Your task to perform on an android device: Search for sushi restaurants on Maps Image 0: 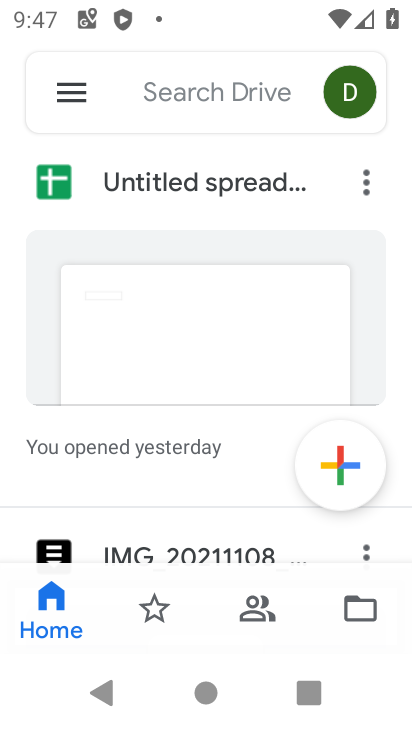
Step 0: press home button
Your task to perform on an android device: Search for sushi restaurants on Maps Image 1: 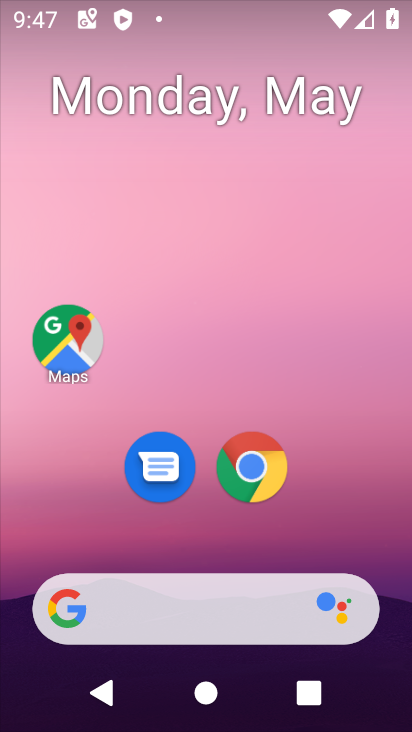
Step 1: click (66, 334)
Your task to perform on an android device: Search for sushi restaurants on Maps Image 2: 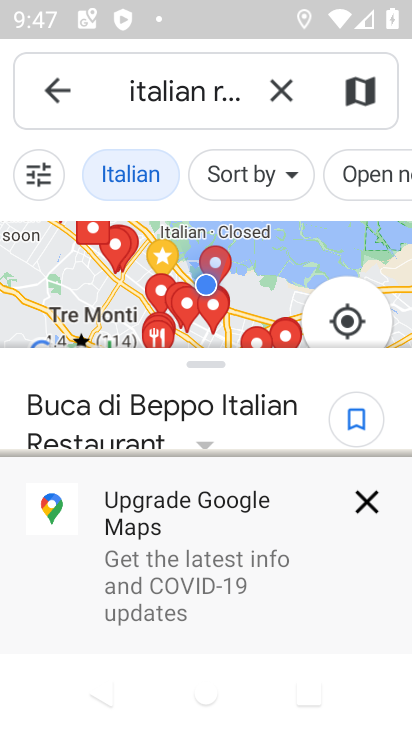
Step 2: click (281, 88)
Your task to perform on an android device: Search for sushi restaurants on Maps Image 3: 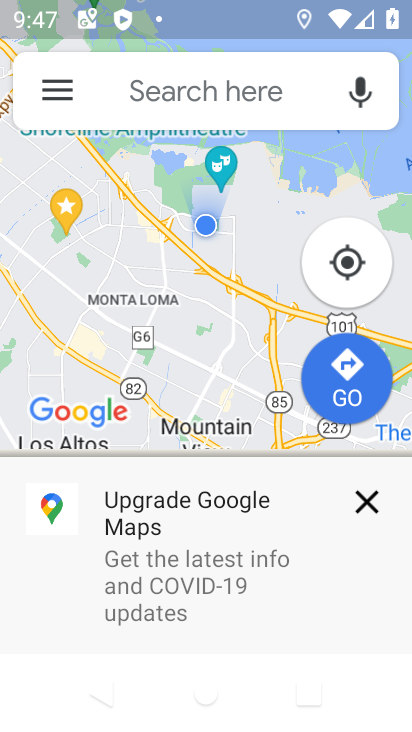
Step 3: click (237, 82)
Your task to perform on an android device: Search for sushi restaurants on Maps Image 4: 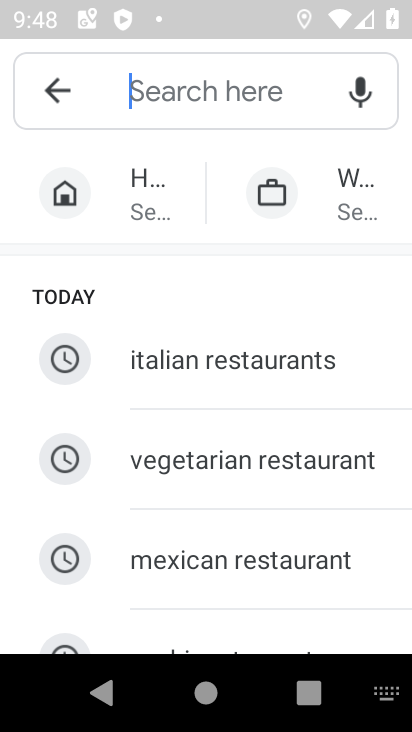
Step 4: type "sushi restaurants"
Your task to perform on an android device: Search for sushi restaurants on Maps Image 5: 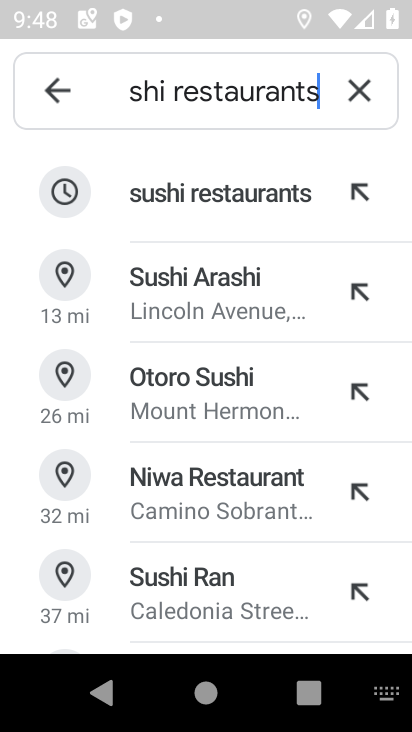
Step 5: click (231, 181)
Your task to perform on an android device: Search for sushi restaurants on Maps Image 6: 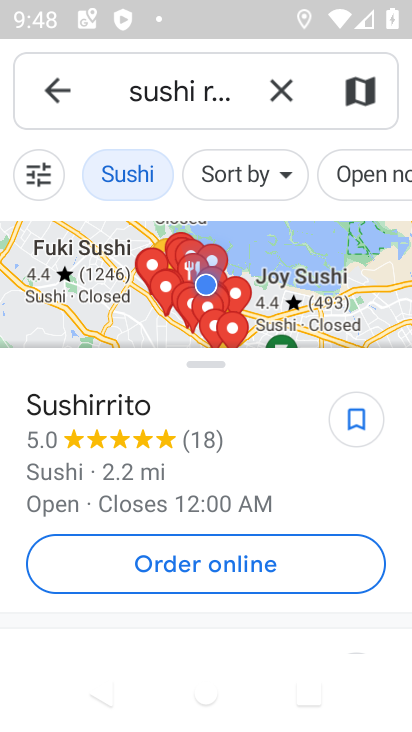
Step 6: task complete